Your task to perform on an android device: Open the calendar app, open the side menu, and click the "Day" option Image 0: 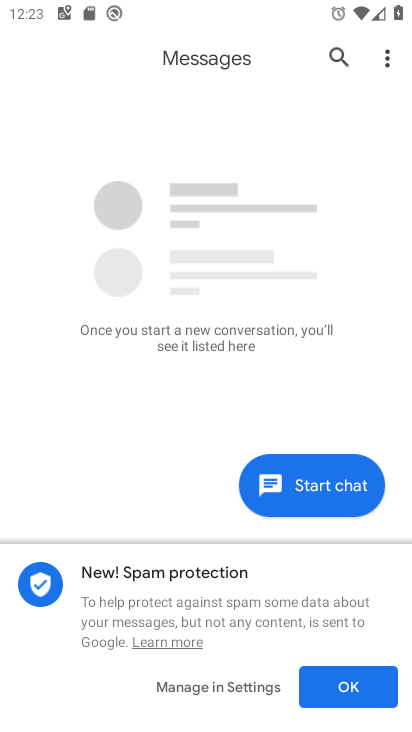
Step 0: press home button
Your task to perform on an android device: Open the calendar app, open the side menu, and click the "Day" option Image 1: 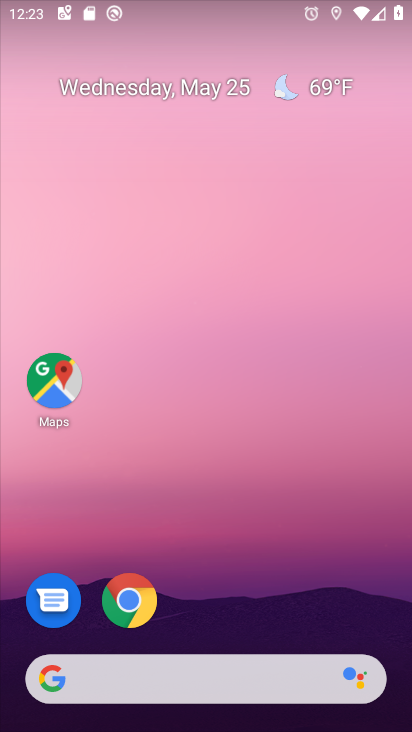
Step 1: drag from (341, 622) to (352, 226)
Your task to perform on an android device: Open the calendar app, open the side menu, and click the "Day" option Image 2: 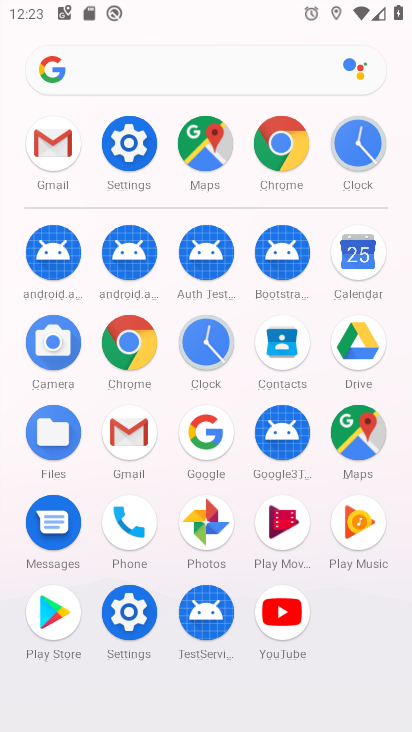
Step 2: click (352, 269)
Your task to perform on an android device: Open the calendar app, open the side menu, and click the "Day" option Image 3: 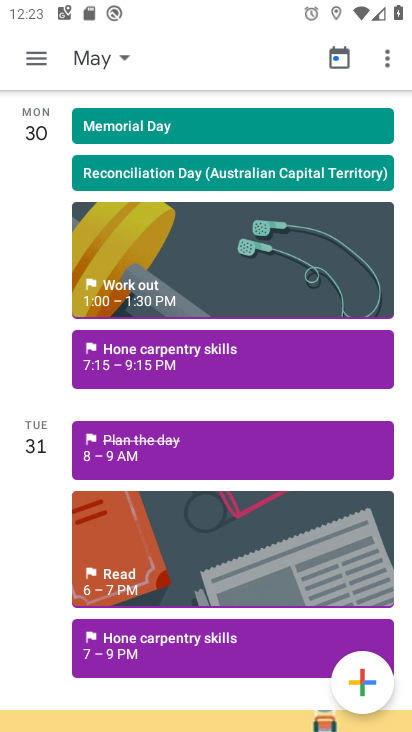
Step 3: click (39, 60)
Your task to perform on an android device: Open the calendar app, open the side menu, and click the "Day" option Image 4: 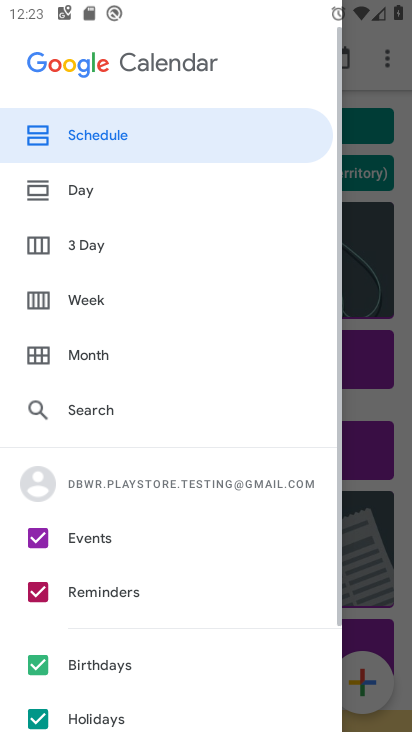
Step 4: click (100, 196)
Your task to perform on an android device: Open the calendar app, open the side menu, and click the "Day" option Image 5: 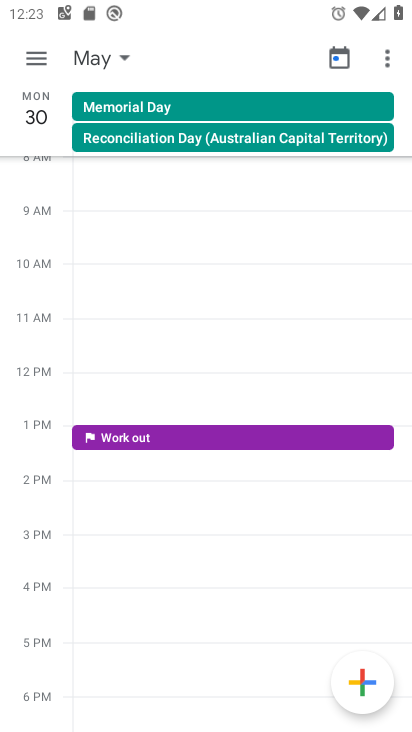
Step 5: task complete